Your task to perform on an android device: Open maps Image 0: 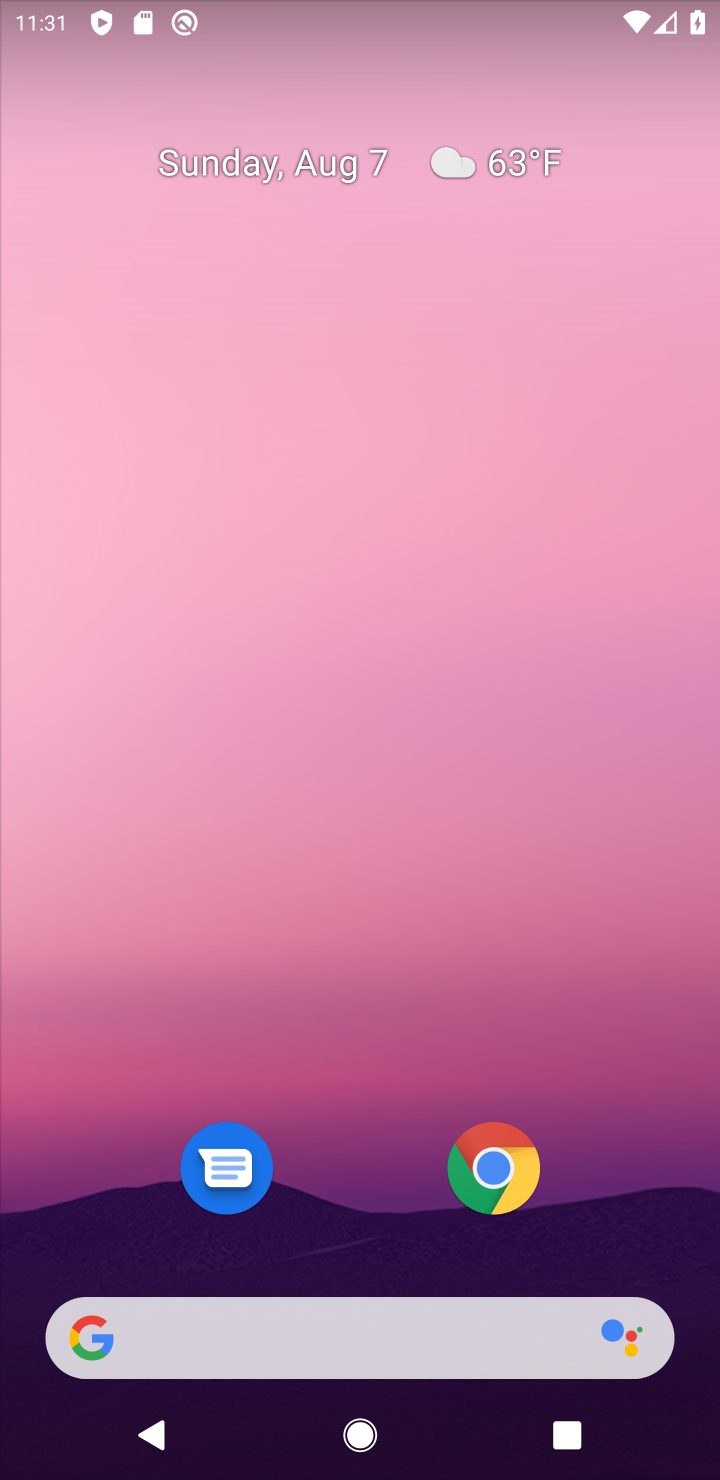
Step 0: press home button
Your task to perform on an android device: Open maps Image 1: 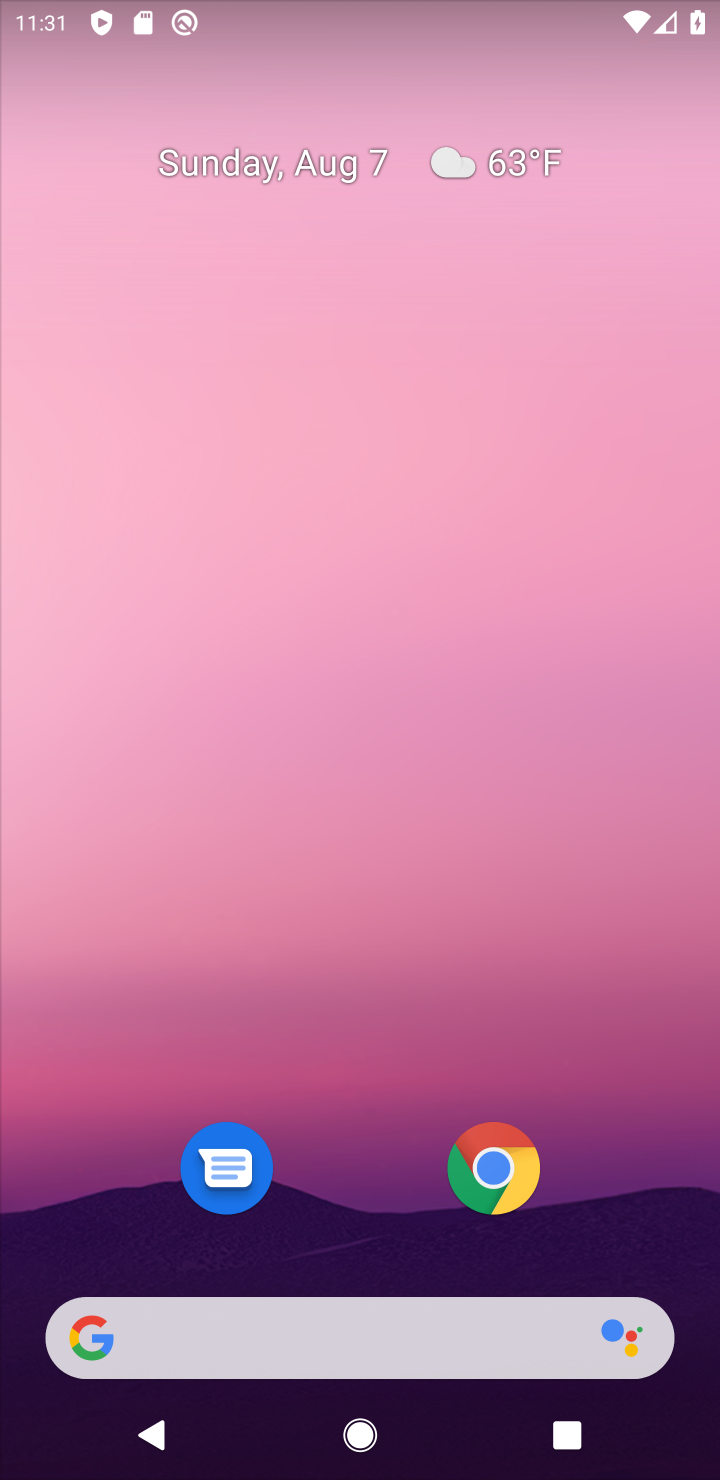
Step 1: drag from (321, 1273) to (247, 552)
Your task to perform on an android device: Open maps Image 2: 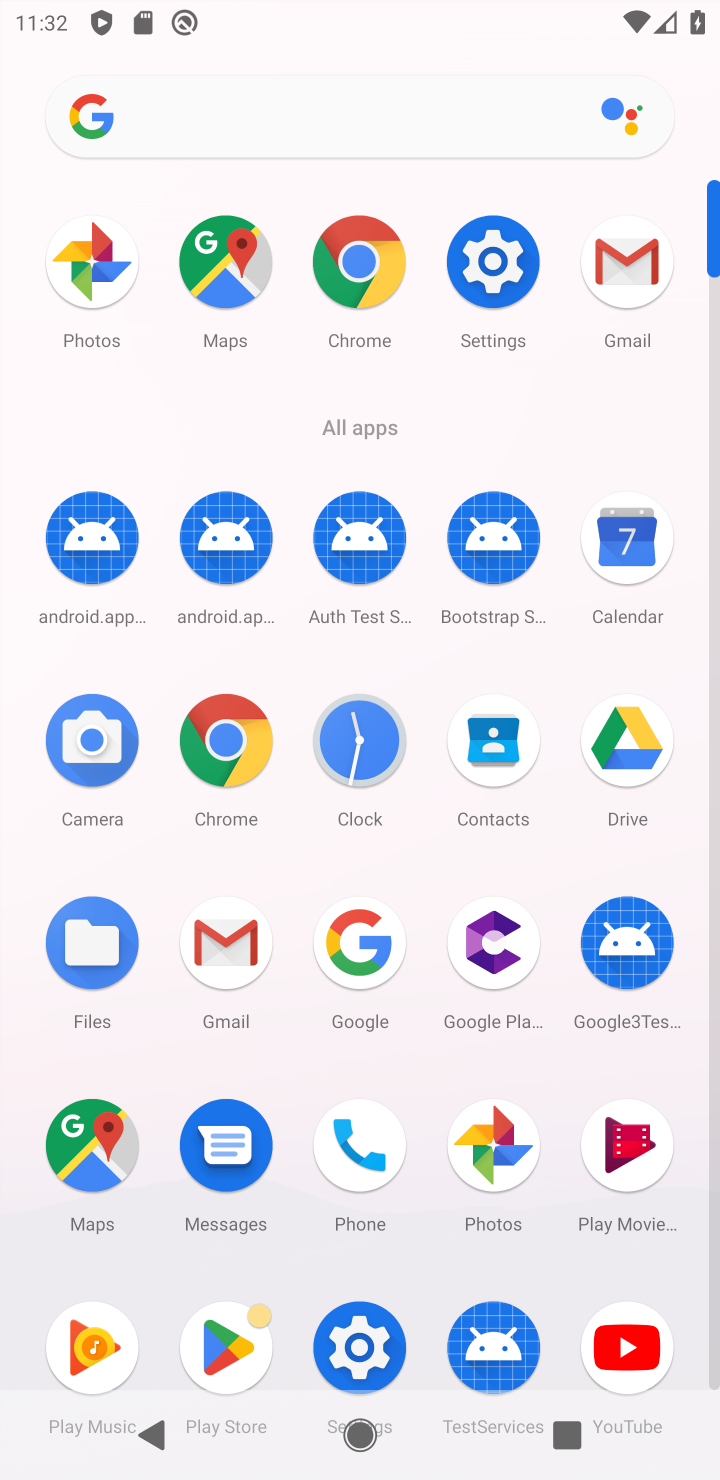
Step 2: click (126, 1149)
Your task to perform on an android device: Open maps Image 3: 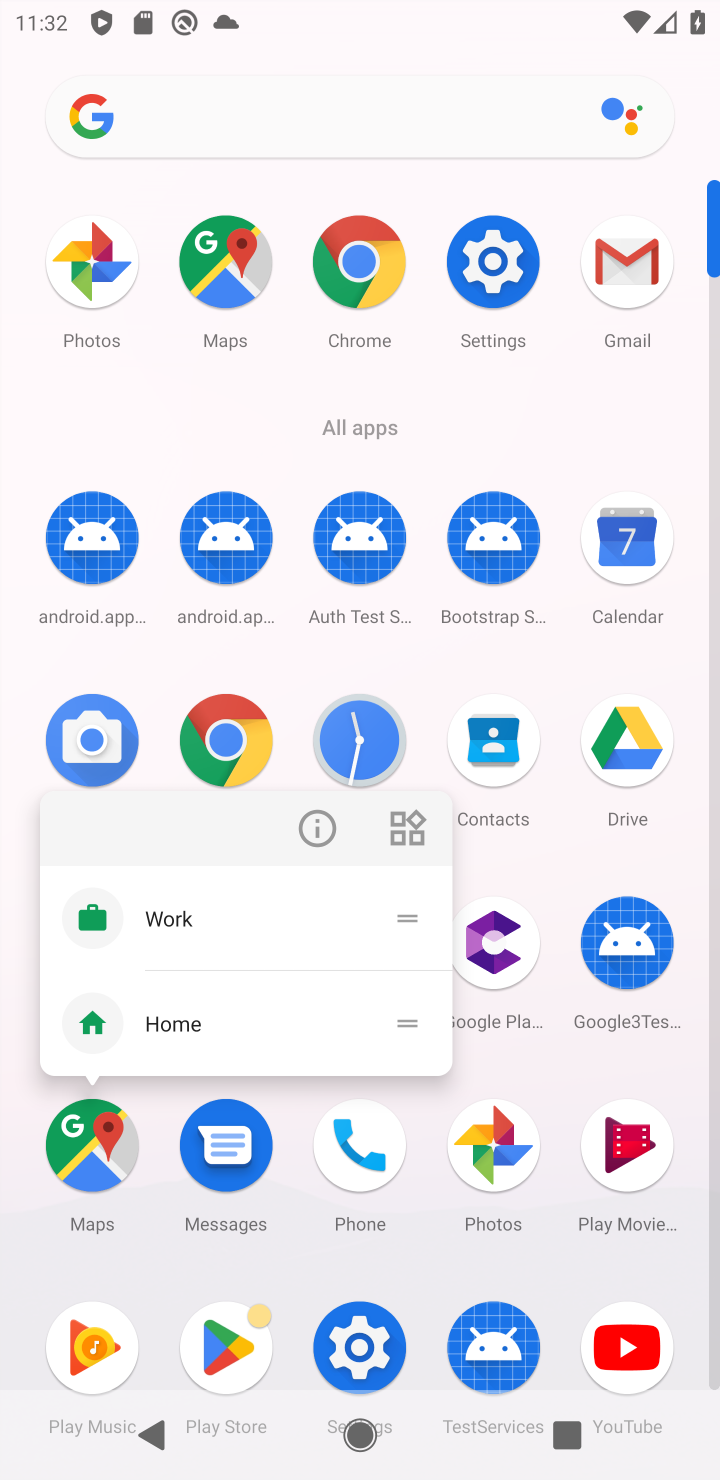
Step 3: click (77, 1165)
Your task to perform on an android device: Open maps Image 4: 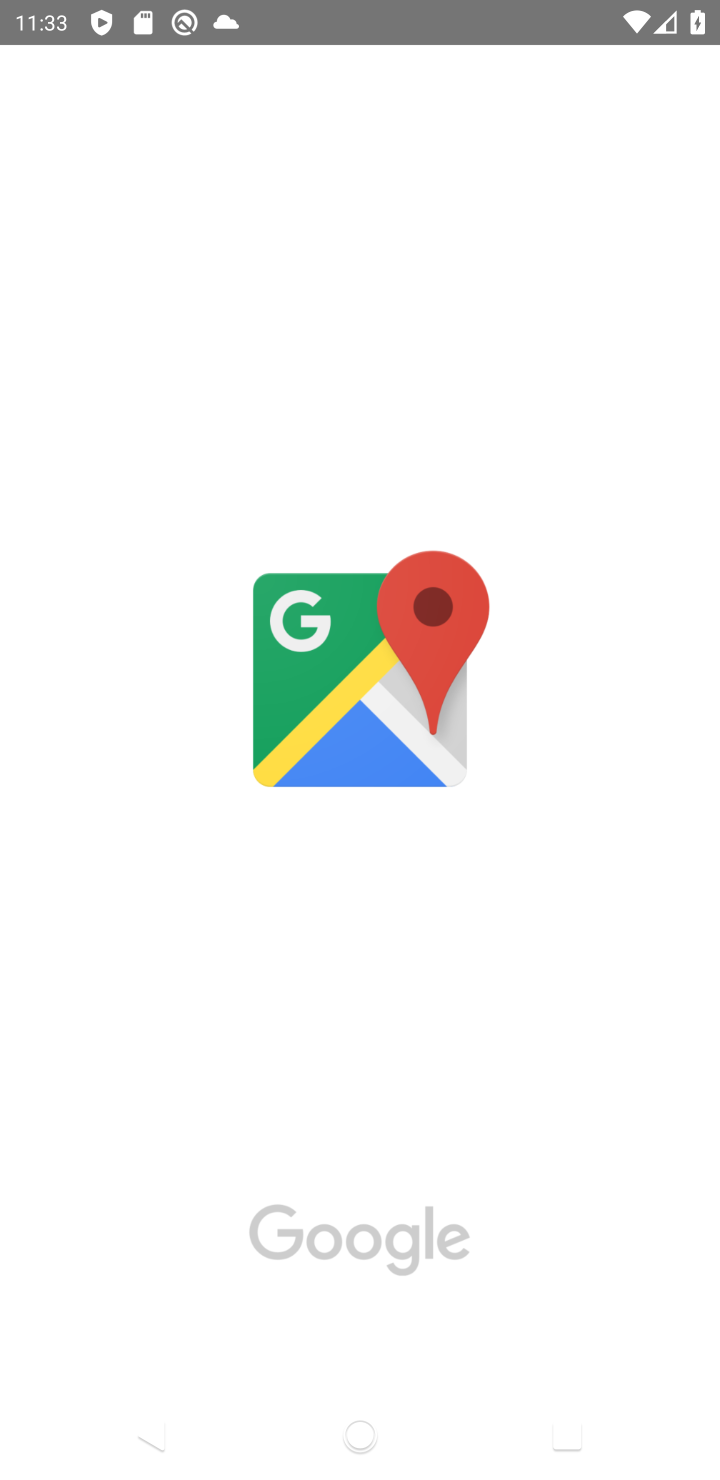
Step 4: task complete